Your task to perform on an android device: Open settings Image 0: 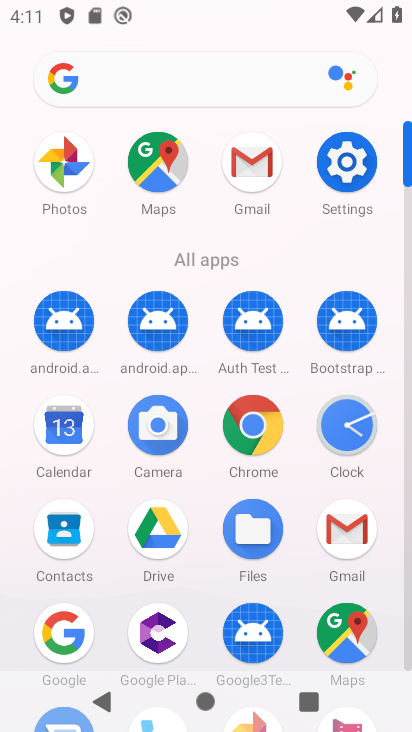
Step 0: press home button
Your task to perform on an android device: Open settings Image 1: 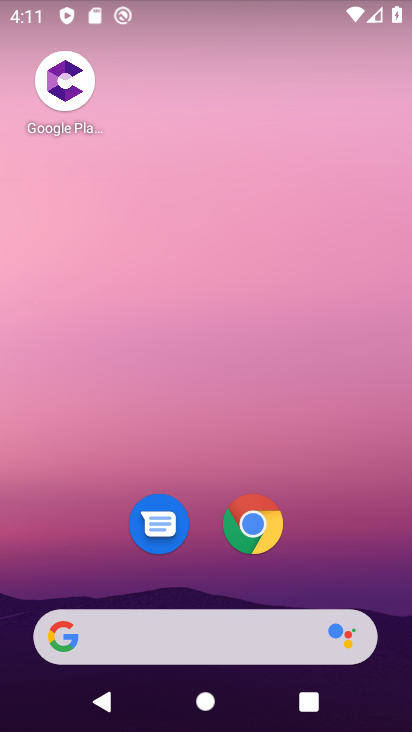
Step 1: drag from (319, 541) to (244, 18)
Your task to perform on an android device: Open settings Image 2: 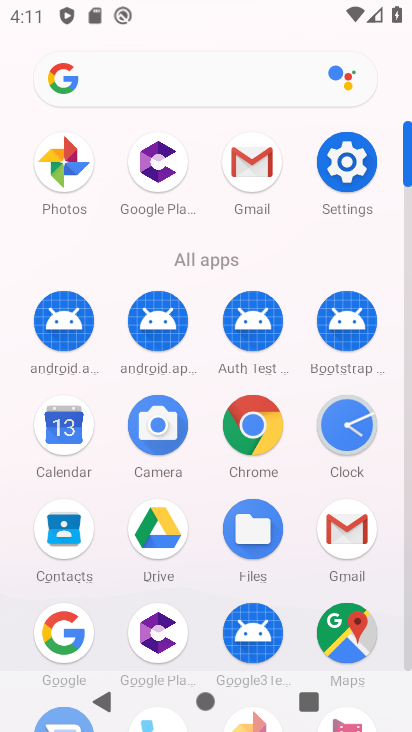
Step 2: click (345, 159)
Your task to perform on an android device: Open settings Image 3: 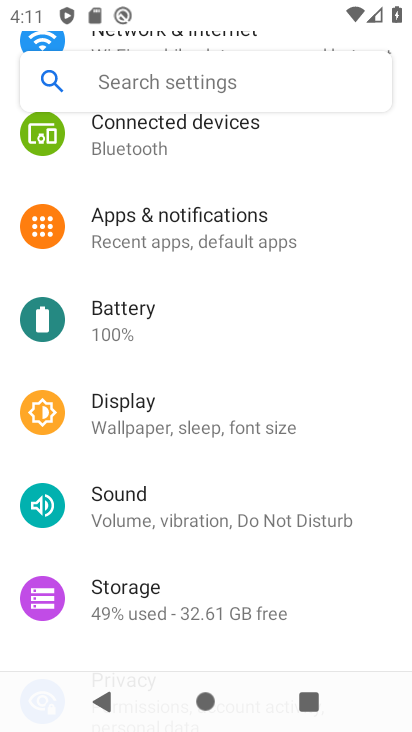
Step 3: task complete